Your task to perform on an android device: Empty the shopping cart on walmart.com. Image 0: 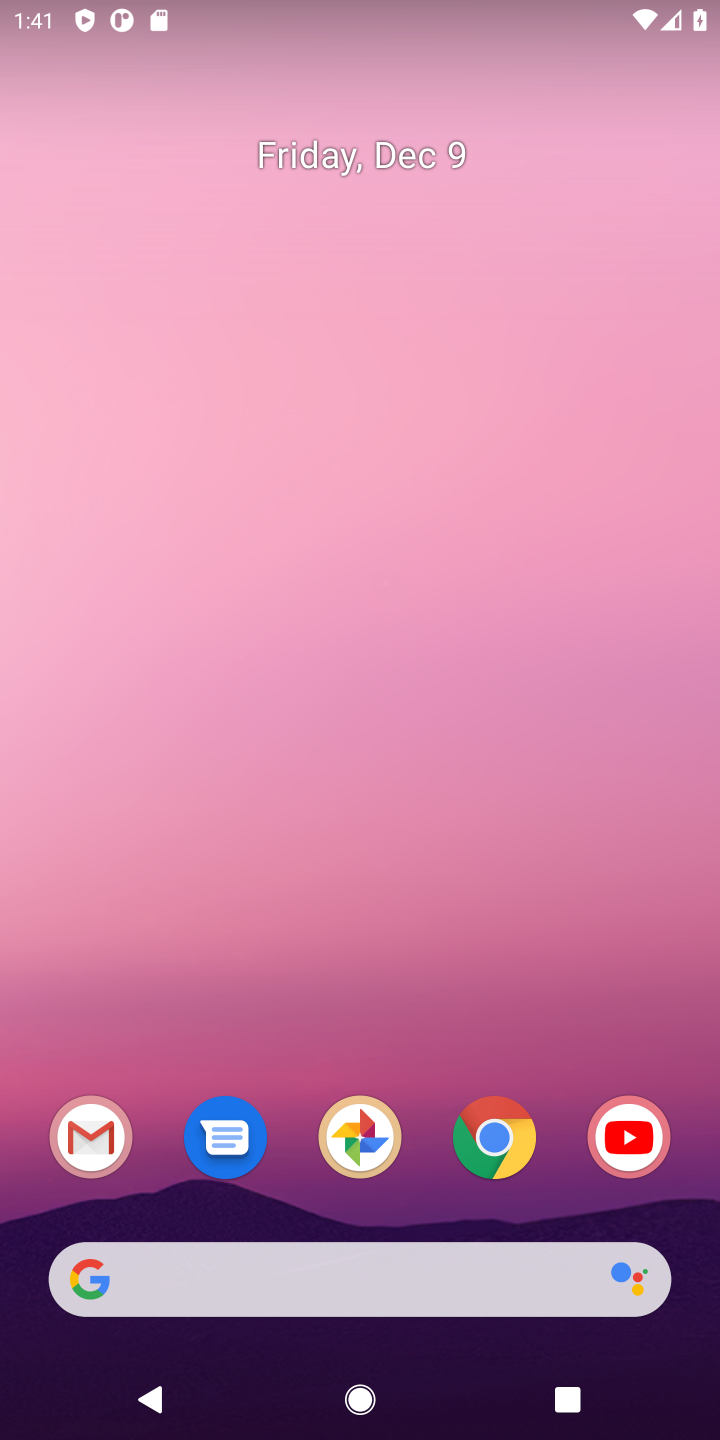
Step 0: click (478, 1157)
Your task to perform on an android device: Empty the shopping cart on walmart.com. Image 1: 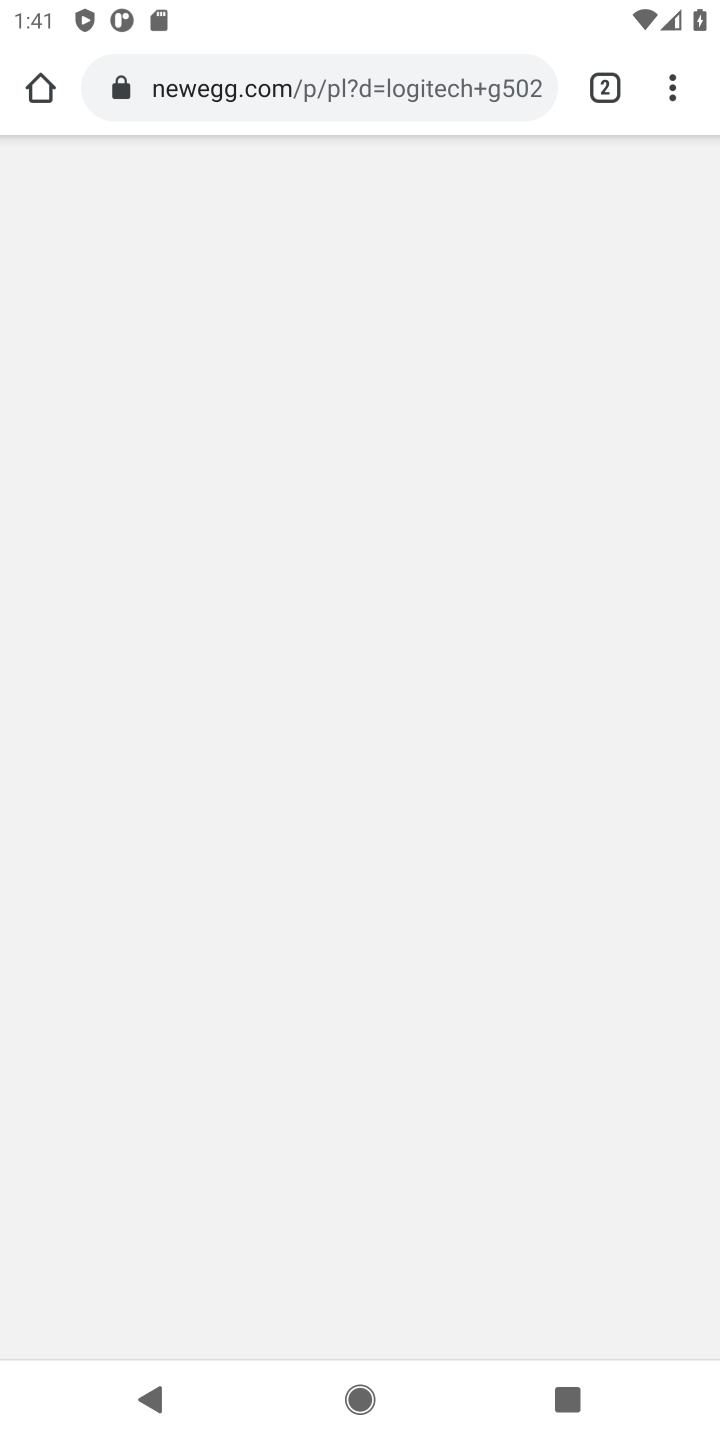
Step 1: click (349, 90)
Your task to perform on an android device: Empty the shopping cart on walmart.com. Image 2: 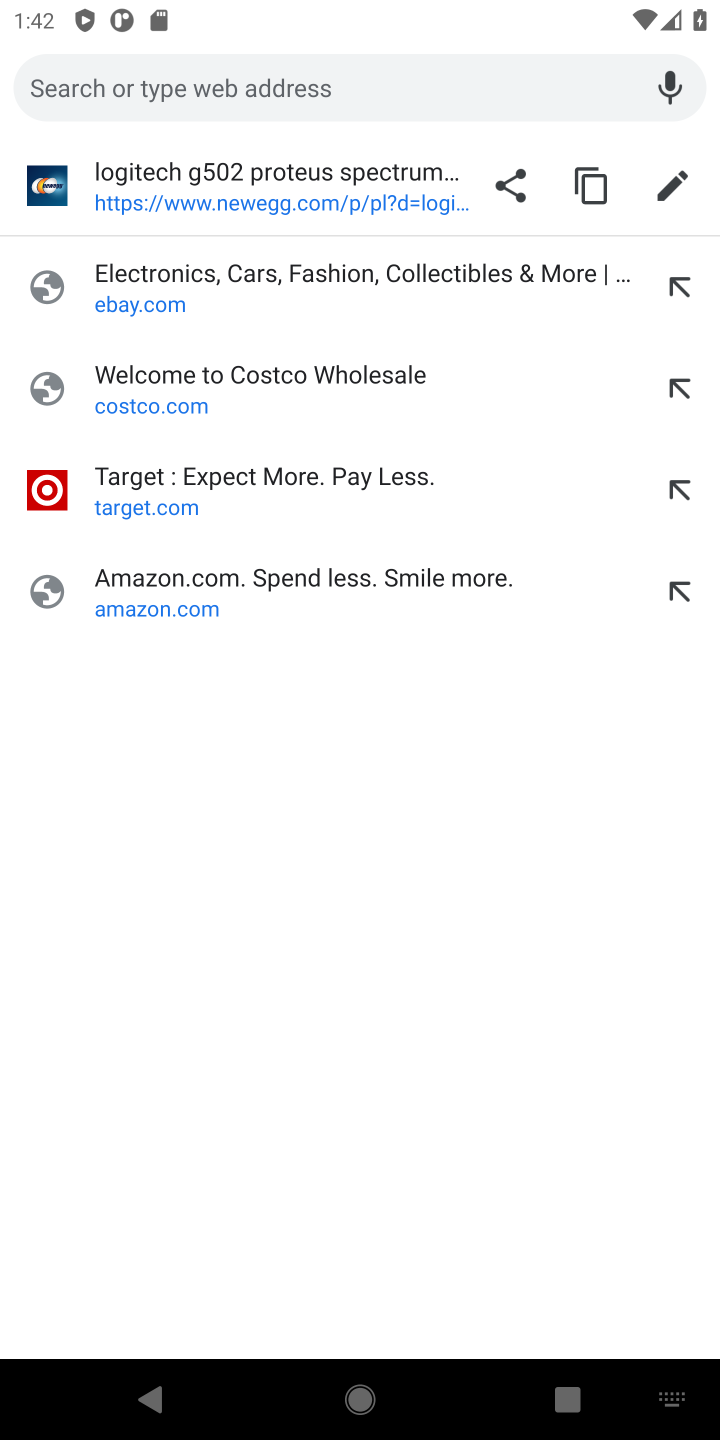
Step 2: type "WALMART"
Your task to perform on an android device: Empty the shopping cart on walmart.com. Image 3: 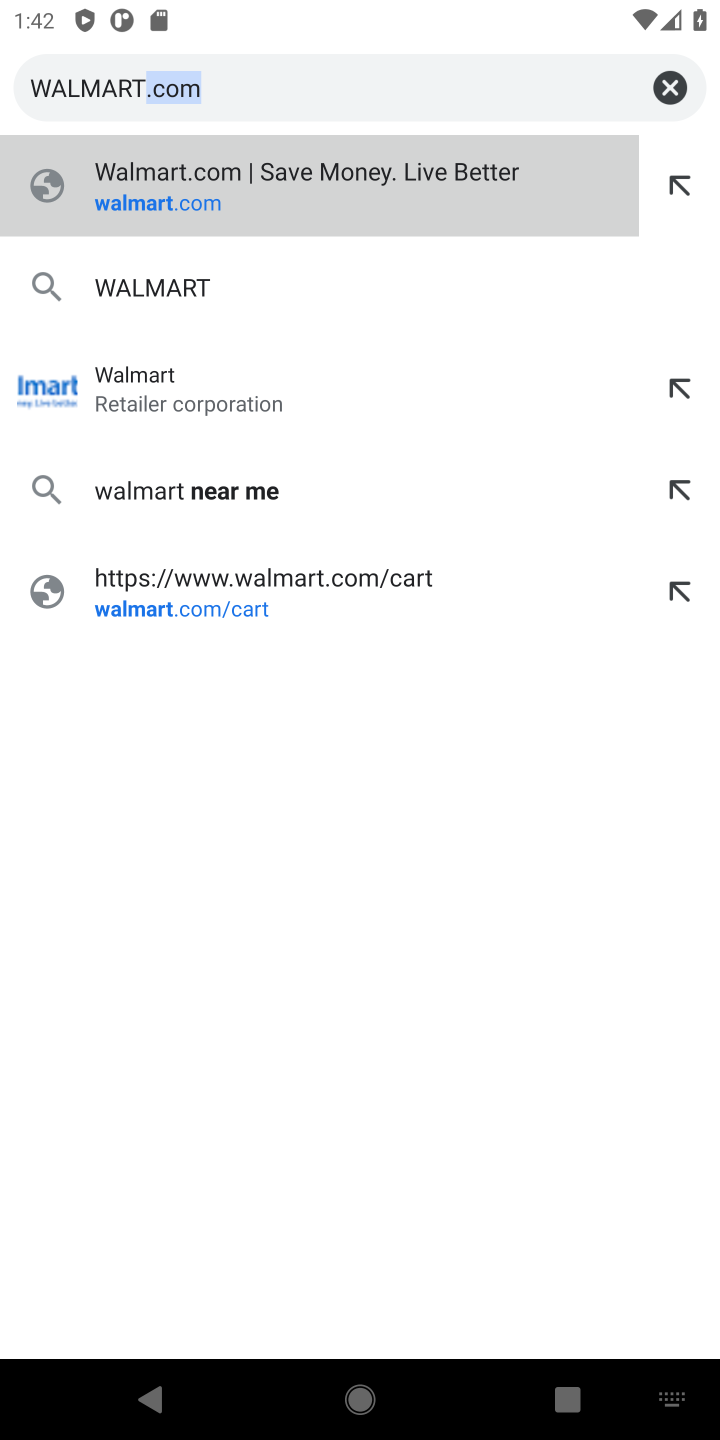
Step 3: click (281, 202)
Your task to perform on an android device: Empty the shopping cart on walmart.com. Image 4: 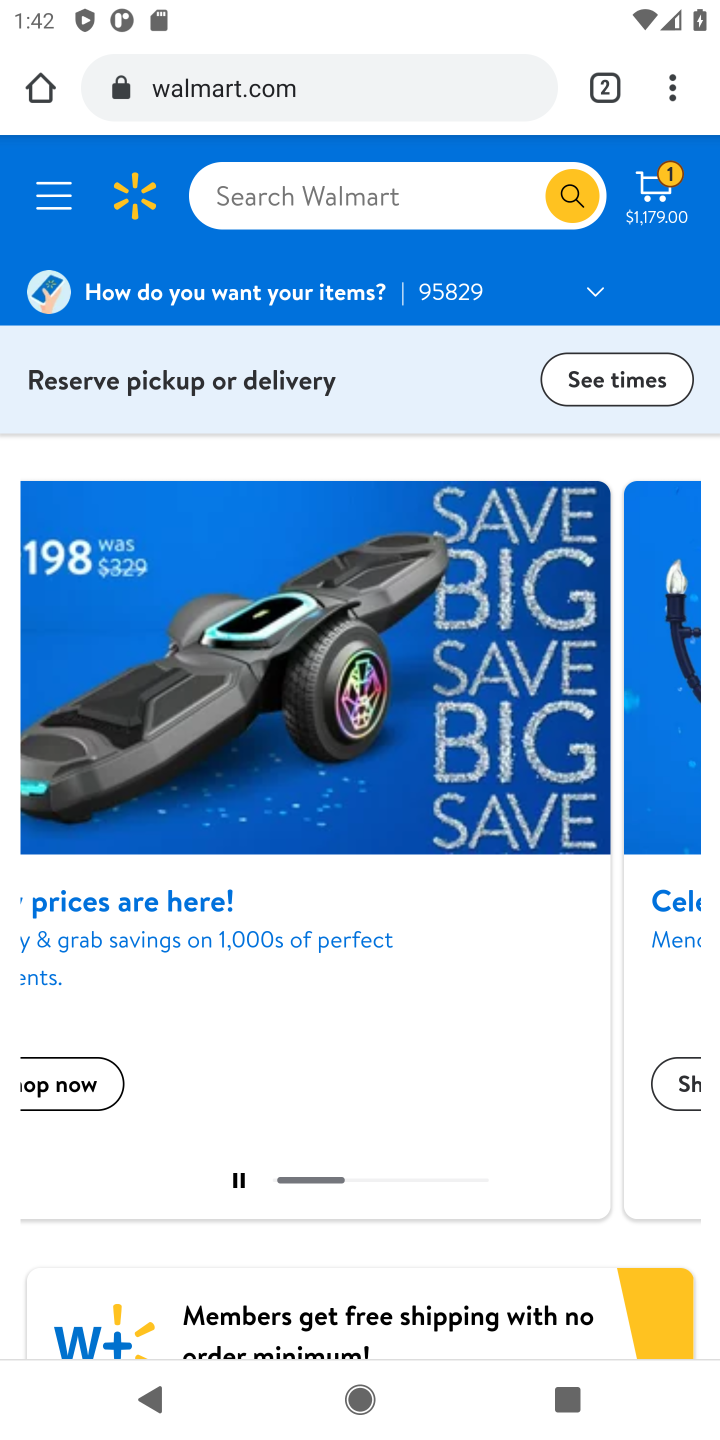
Step 4: click (652, 184)
Your task to perform on an android device: Empty the shopping cart on walmart.com. Image 5: 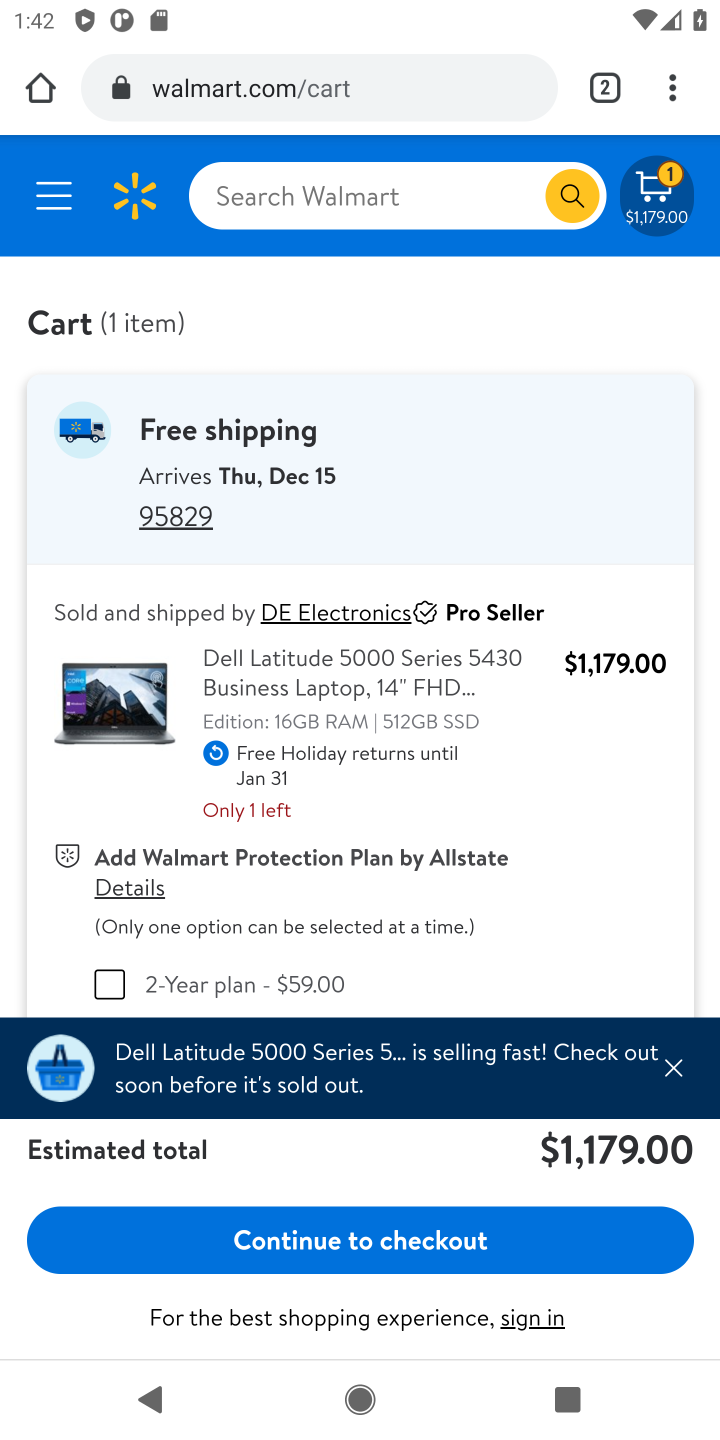
Step 5: drag from (587, 850) to (618, 214)
Your task to perform on an android device: Empty the shopping cart on walmart.com. Image 6: 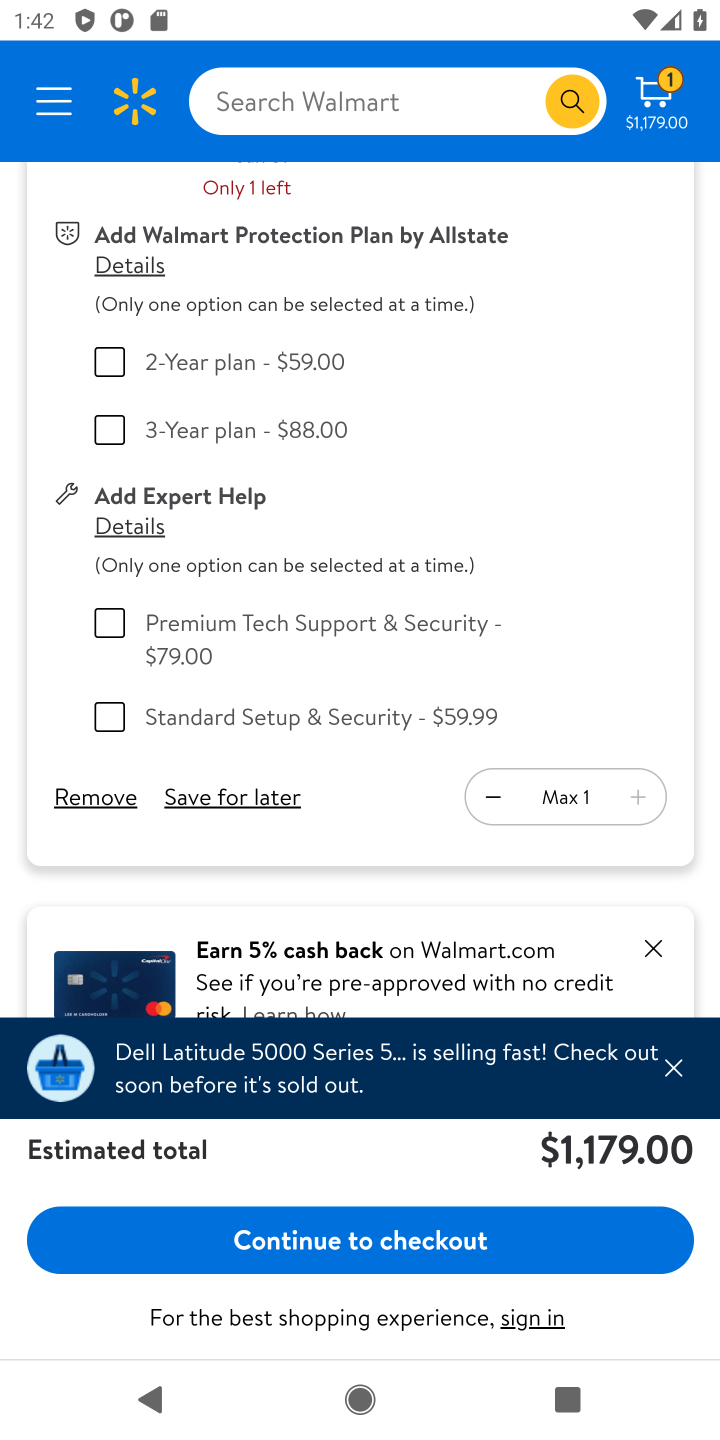
Step 6: click (99, 804)
Your task to perform on an android device: Empty the shopping cart on walmart.com. Image 7: 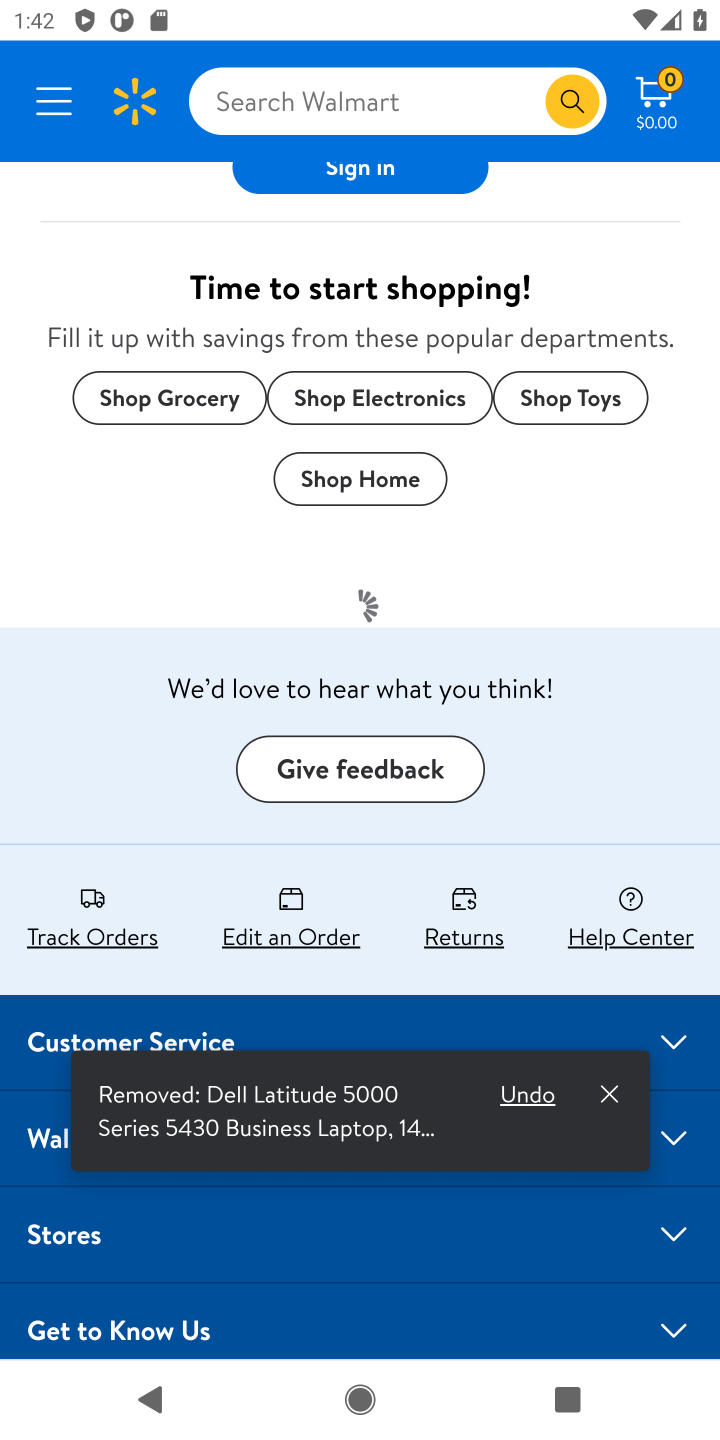
Step 7: task complete